Your task to perform on an android device: turn off javascript in the chrome app Image 0: 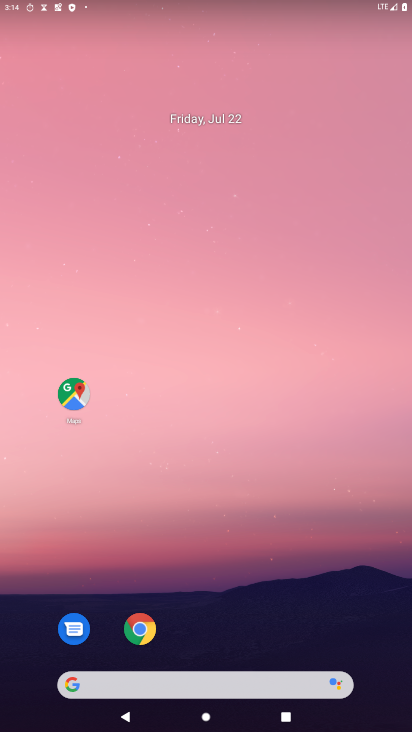
Step 0: drag from (312, 671) to (333, 11)
Your task to perform on an android device: turn off javascript in the chrome app Image 1: 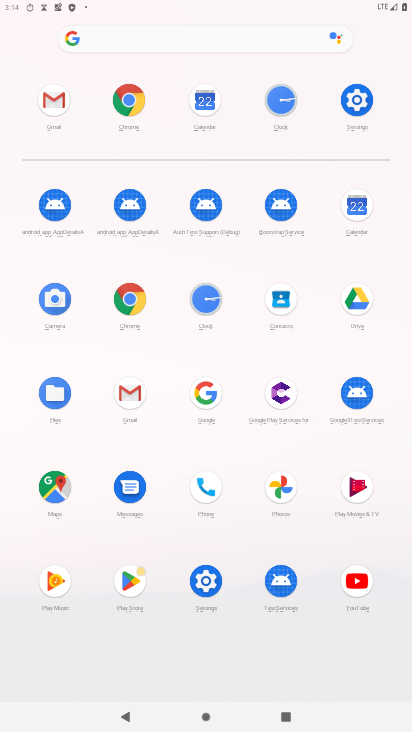
Step 1: click (131, 295)
Your task to perform on an android device: turn off javascript in the chrome app Image 2: 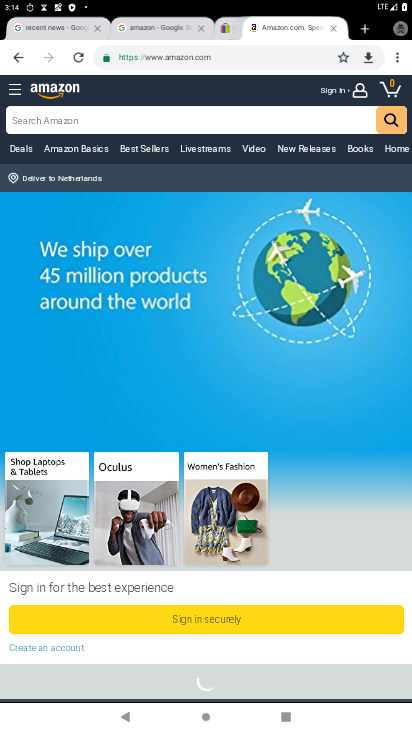
Step 2: drag from (393, 79) to (312, 466)
Your task to perform on an android device: turn off javascript in the chrome app Image 3: 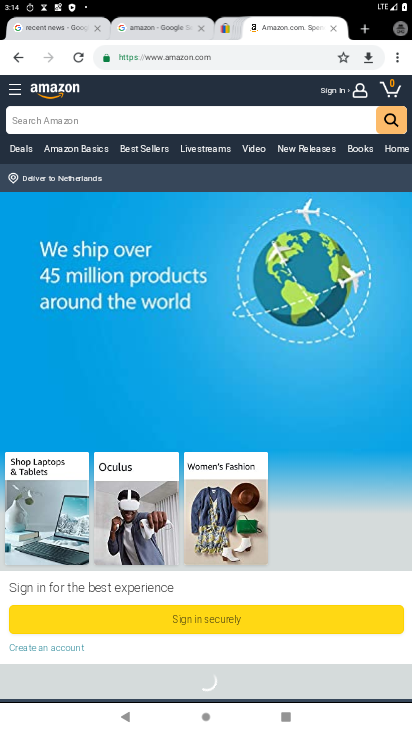
Step 3: drag from (393, 71) to (295, 378)
Your task to perform on an android device: turn off javascript in the chrome app Image 4: 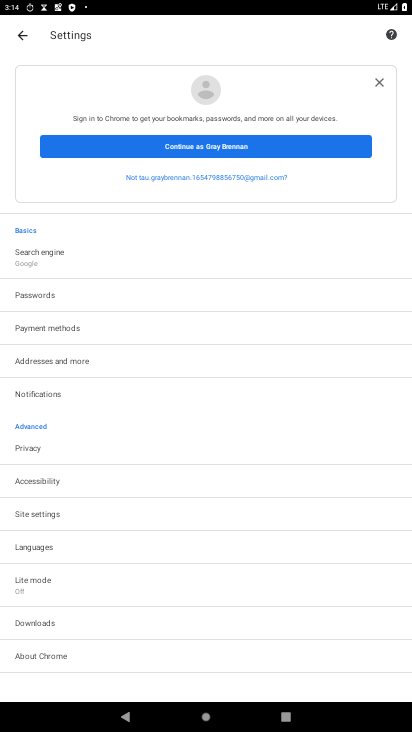
Step 4: click (70, 525)
Your task to perform on an android device: turn off javascript in the chrome app Image 5: 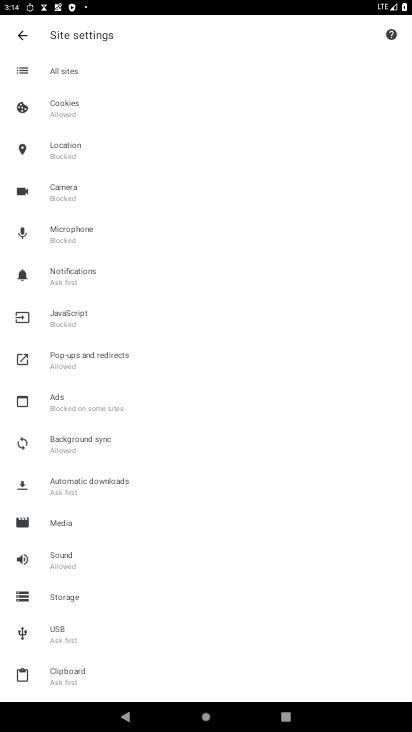
Step 5: click (95, 323)
Your task to perform on an android device: turn off javascript in the chrome app Image 6: 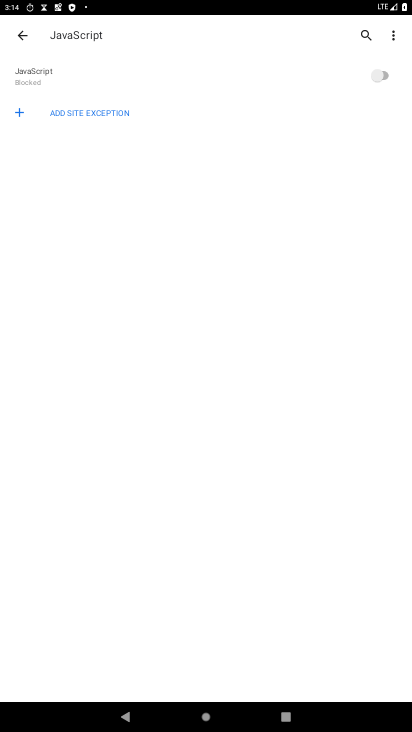
Step 6: task complete